Your task to perform on an android device: remove spam from my inbox in the gmail app Image 0: 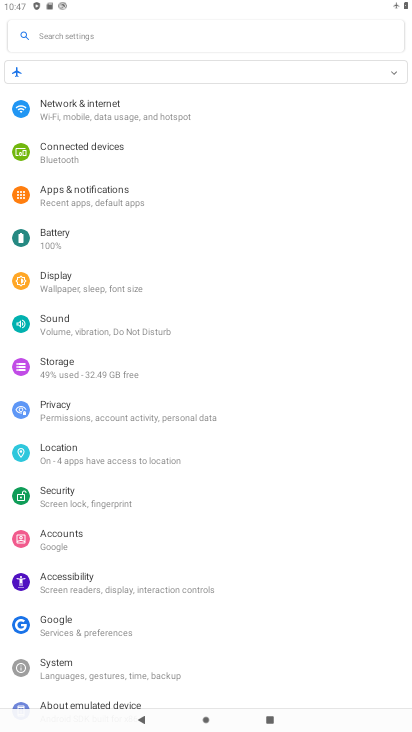
Step 0: press home button
Your task to perform on an android device: remove spam from my inbox in the gmail app Image 1: 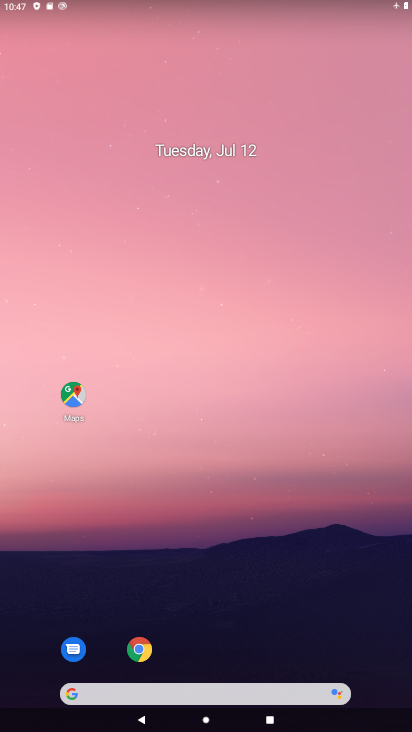
Step 1: drag from (366, 641) to (361, 104)
Your task to perform on an android device: remove spam from my inbox in the gmail app Image 2: 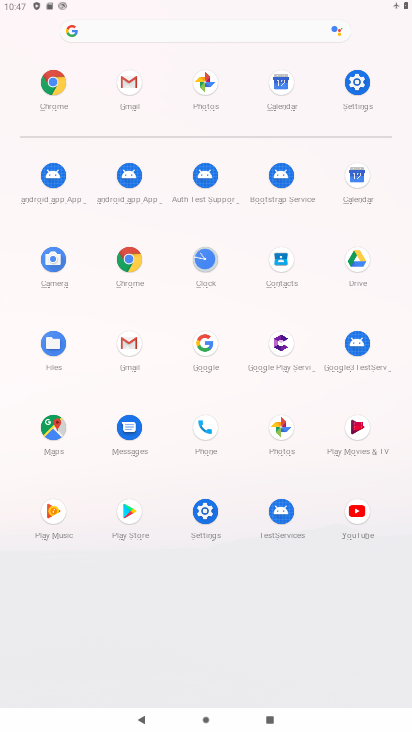
Step 2: click (130, 346)
Your task to perform on an android device: remove spam from my inbox in the gmail app Image 3: 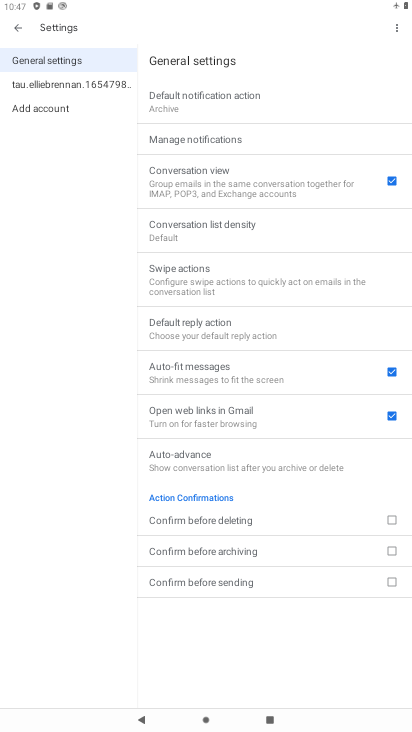
Step 3: press back button
Your task to perform on an android device: remove spam from my inbox in the gmail app Image 4: 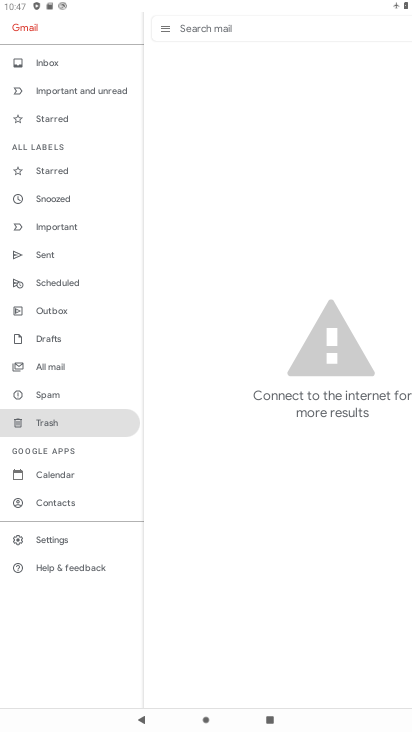
Step 4: press back button
Your task to perform on an android device: remove spam from my inbox in the gmail app Image 5: 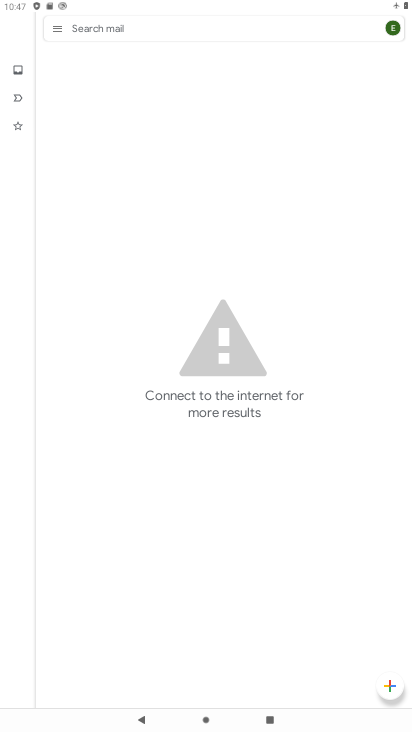
Step 5: click (58, 29)
Your task to perform on an android device: remove spam from my inbox in the gmail app Image 6: 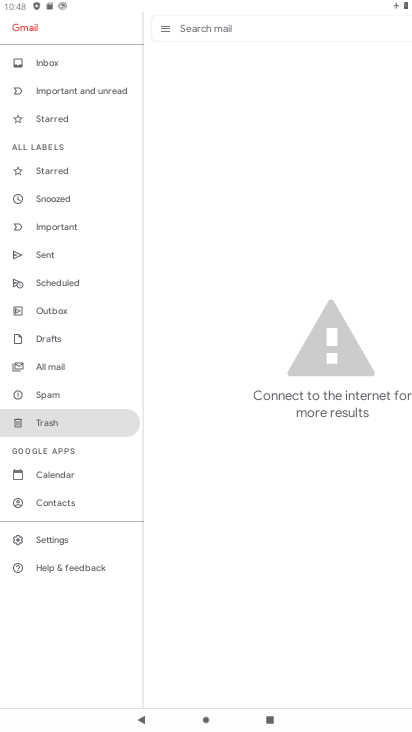
Step 6: click (51, 393)
Your task to perform on an android device: remove spam from my inbox in the gmail app Image 7: 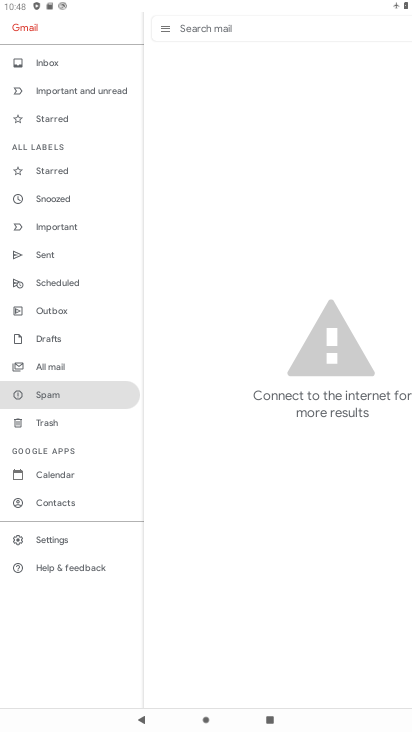
Step 7: task complete